Your task to perform on an android device: toggle wifi Image 0: 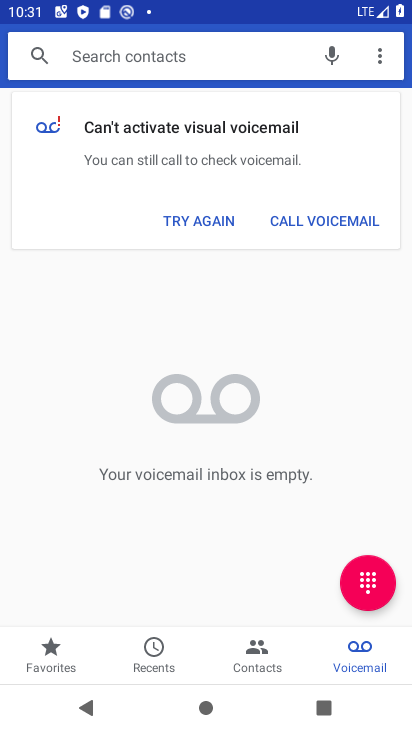
Step 0: drag from (133, 604) to (217, 183)
Your task to perform on an android device: toggle wifi Image 1: 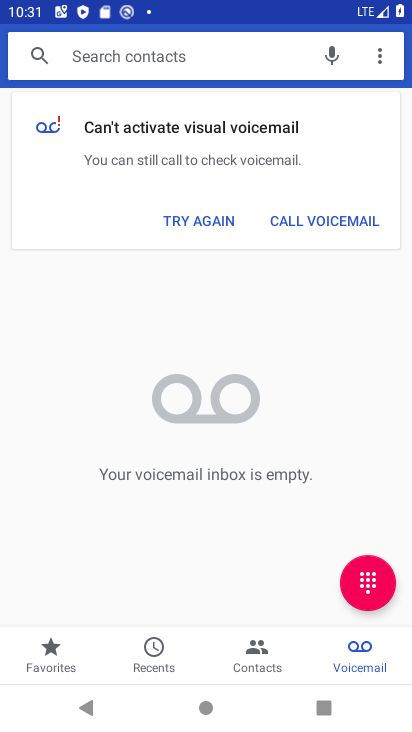
Step 1: drag from (244, 554) to (302, 120)
Your task to perform on an android device: toggle wifi Image 2: 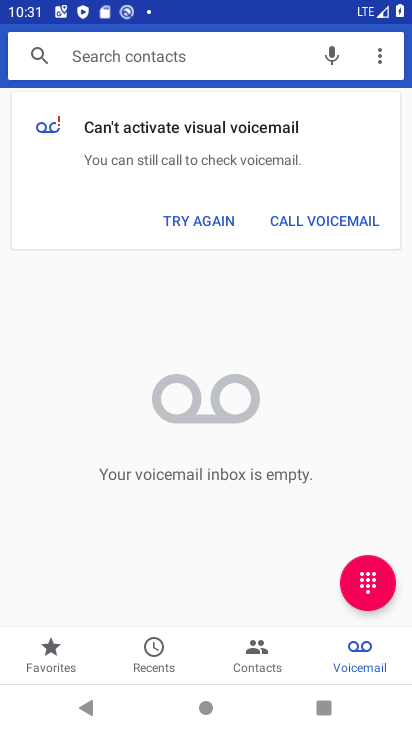
Step 2: press home button
Your task to perform on an android device: toggle wifi Image 3: 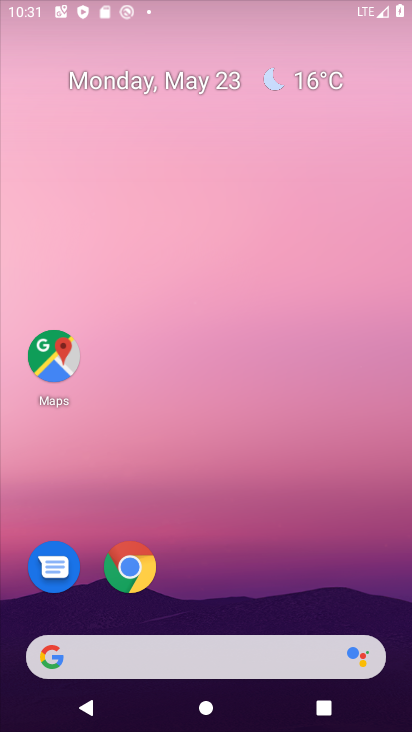
Step 3: drag from (229, 584) to (306, 155)
Your task to perform on an android device: toggle wifi Image 4: 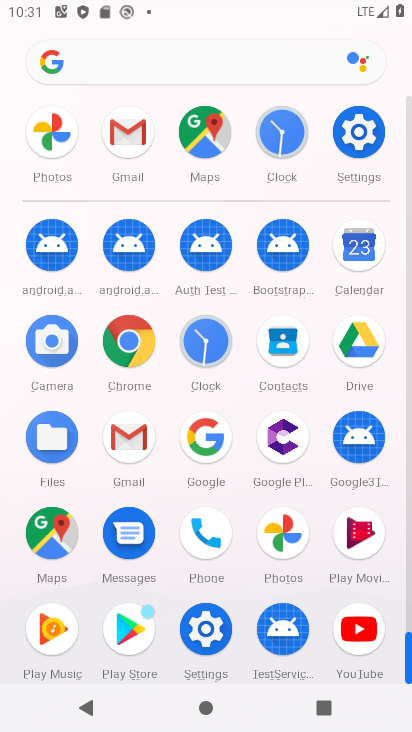
Step 4: click (354, 114)
Your task to perform on an android device: toggle wifi Image 5: 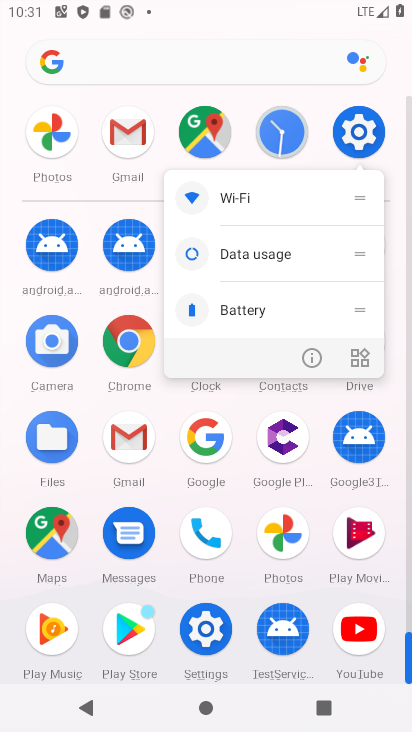
Step 5: click (320, 359)
Your task to perform on an android device: toggle wifi Image 6: 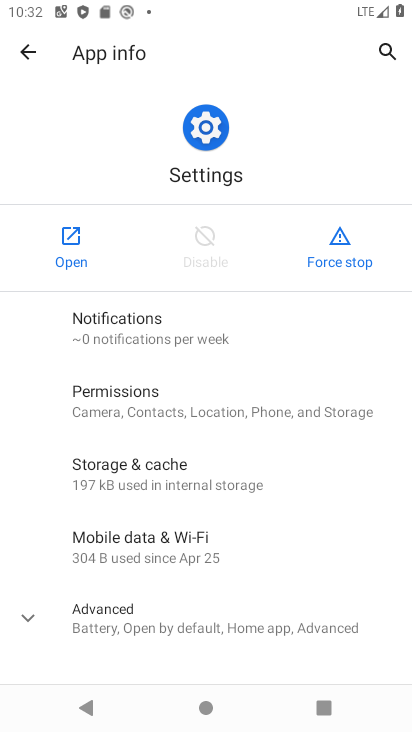
Step 6: click (76, 241)
Your task to perform on an android device: toggle wifi Image 7: 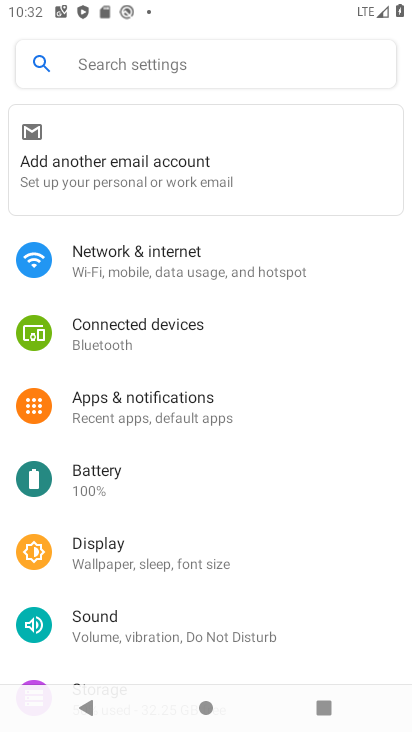
Step 7: click (162, 259)
Your task to perform on an android device: toggle wifi Image 8: 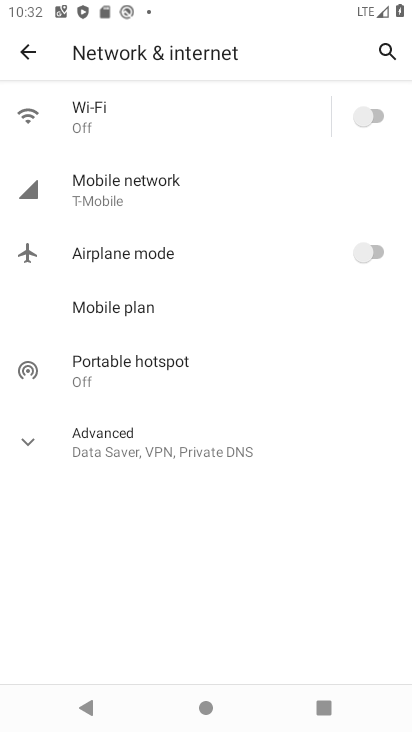
Step 8: click (196, 99)
Your task to perform on an android device: toggle wifi Image 9: 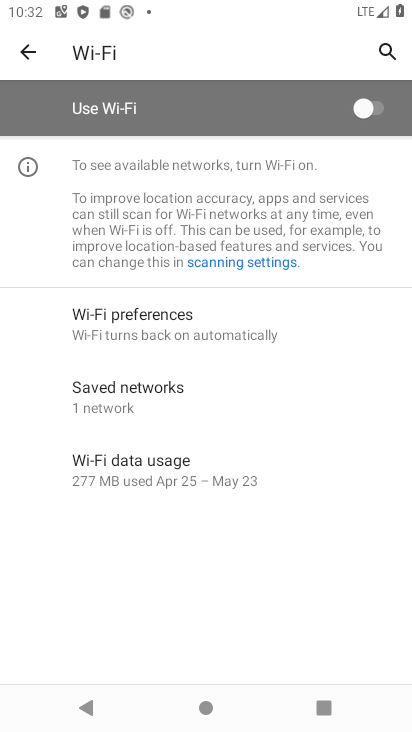
Step 9: drag from (271, 566) to (275, 148)
Your task to perform on an android device: toggle wifi Image 10: 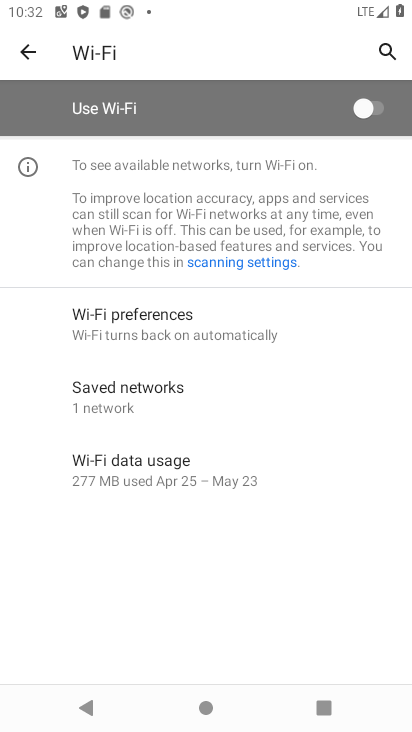
Step 10: drag from (282, 528) to (282, 227)
Your task to perform on an android device: toggle wifi Image 11: 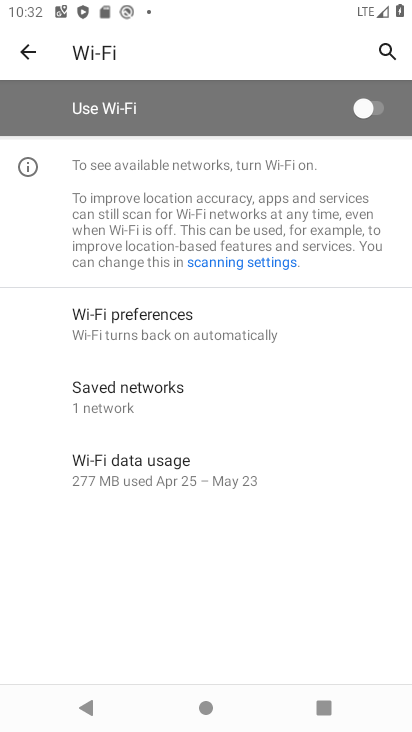
Step 11: click (306, 120)
Your task to perform on an android device: toggle wifi Image 12: 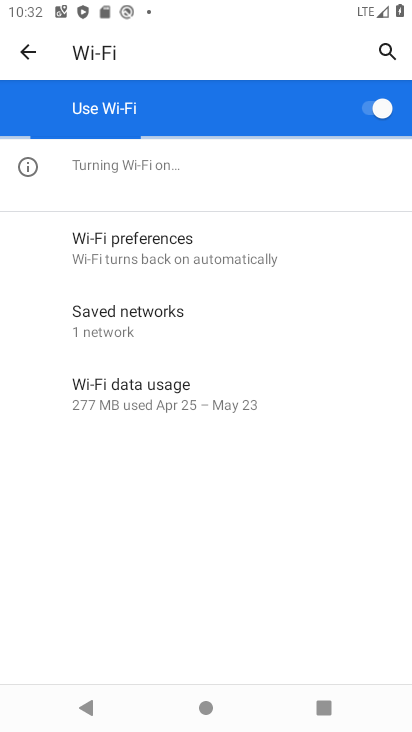
Step 12: task complete